Your task to perform on an android device: delete the emails in spam in the gmail app Image 0: 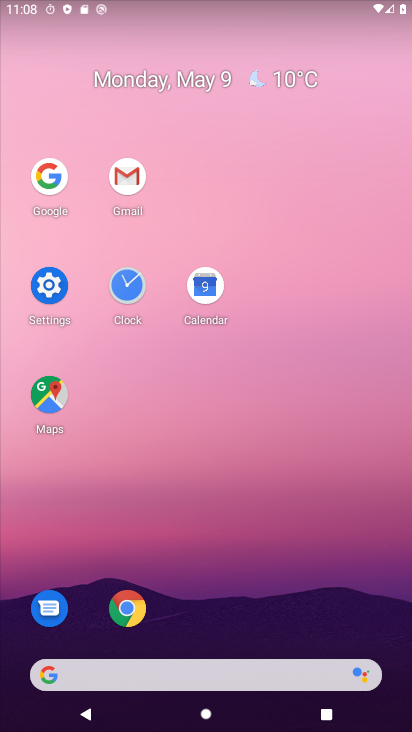
Step 0: click (141, 178)
Your task to perform on an android device: delete the emails in spam in the gmail app Image 1: 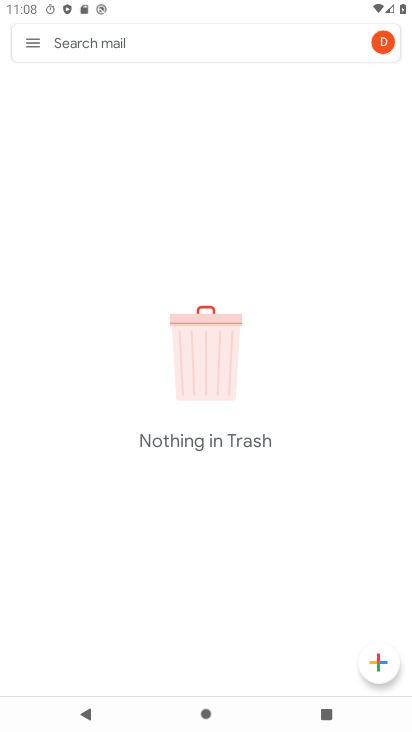
Step 1: click (30, 47)
Your task to perform on an android device: delete the emails in spam in the gmail app Image 2: 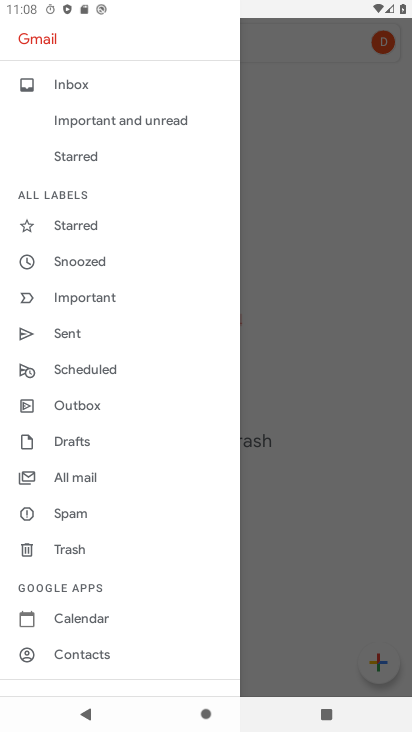
Step 2: click (80, 518)
Your task to perform on an android device: delete the emails in spam in the gmail app Image 3: 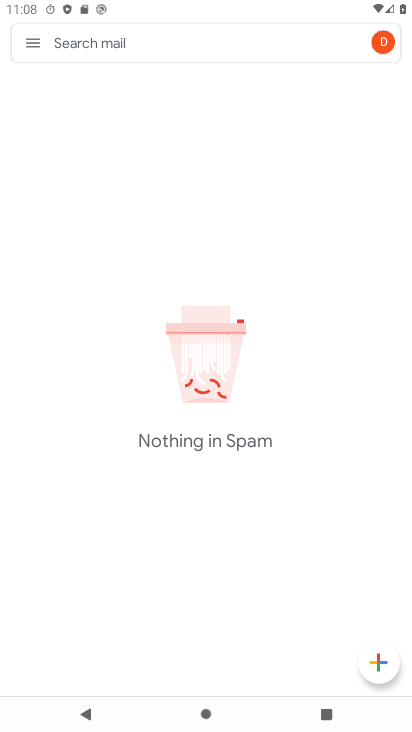
Step 3: task complete